Your task to perform on an android device: turn on notifications settings in the gmail app Image 0: 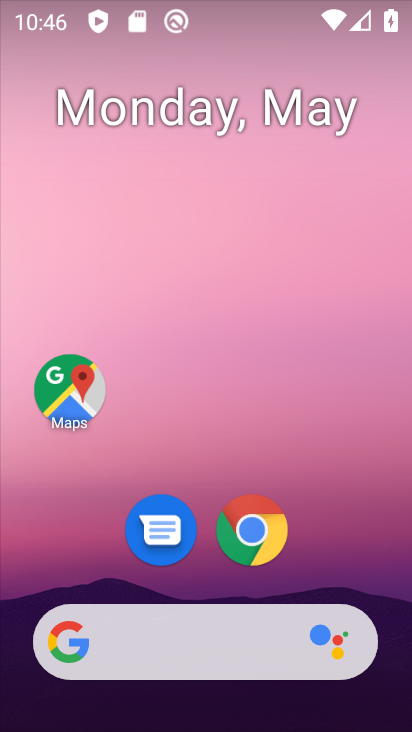
Step 0: drag from (312, 548) to (314, 2)
Your task to perform on an android device: turn on notifications settings in the gmail app Image 1: 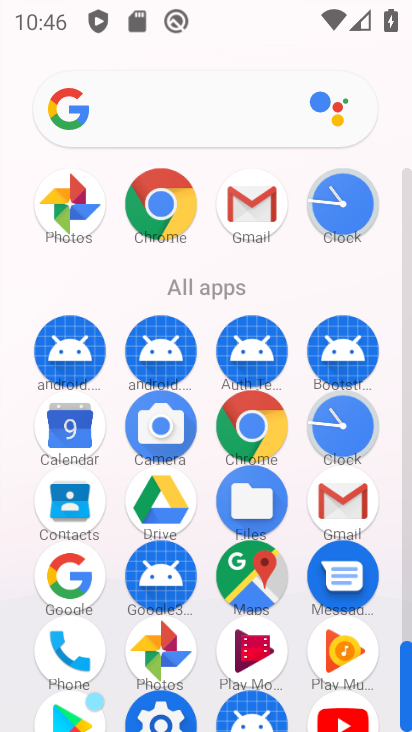
Step 1: drag from (9, 661) to (22, 354)
Your task to perform on an android device: turn on notifications settings in the gmail app Image 2: 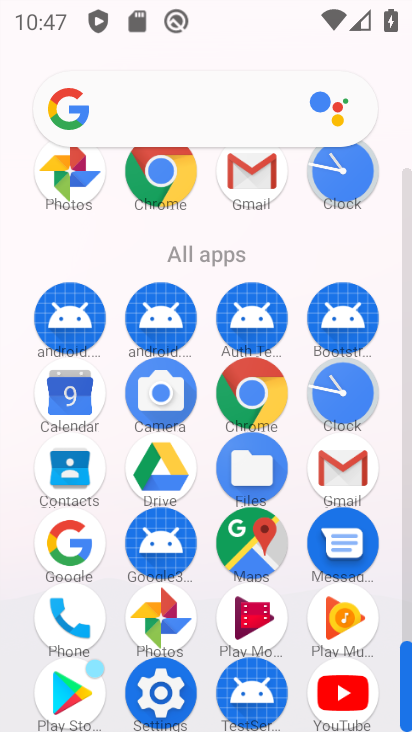
Step 2: click (342, 458)
Your task to perform on an android device: turn on notifications settings in the gmail app Image 3: 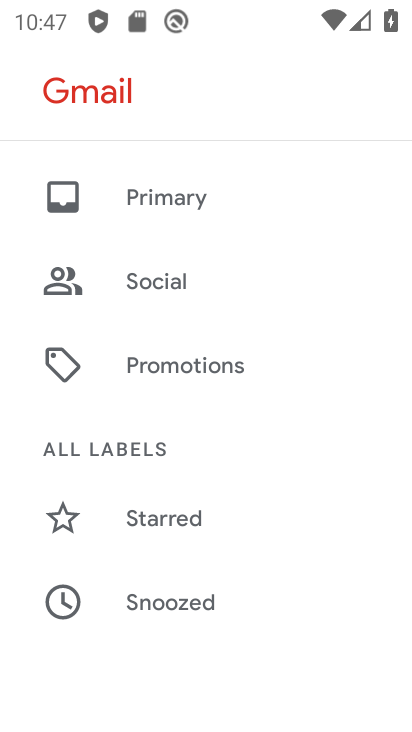
Step 3: drag from (245, 586) to (276, 160)
Your task to perform on an android device: turn on notifications settings in the gmail app Image 4: 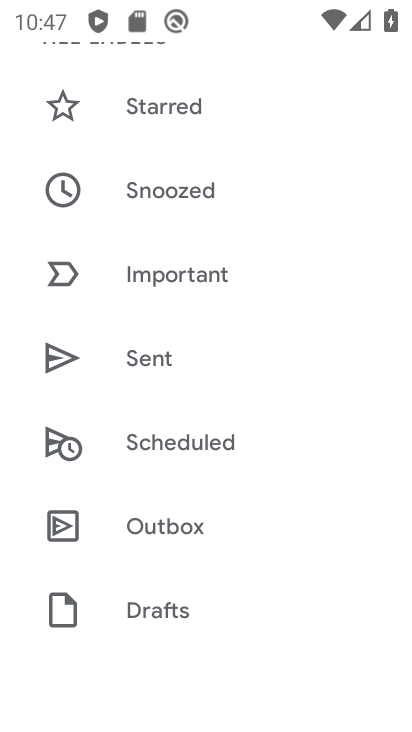
Step 4: drag from (237, 590) to (264, 130)
Your task to perform on an android device: turn on notifications settings in the gmail app Image 5: 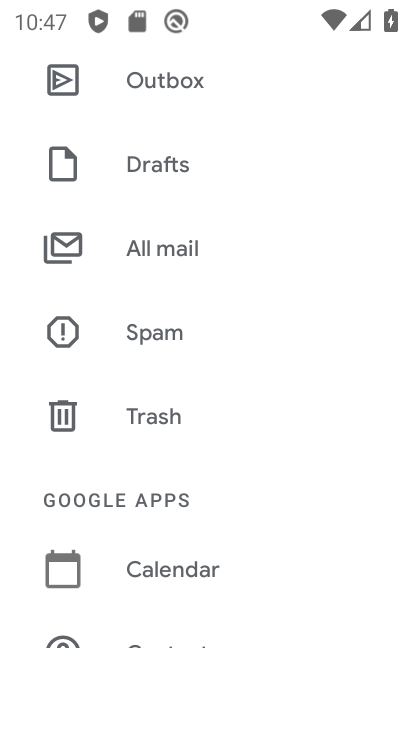
Step 5: drag from (216, 568) to (258, 190)
Your task to perform on an android device: turn on notifications settings in the gmail app Image 6: 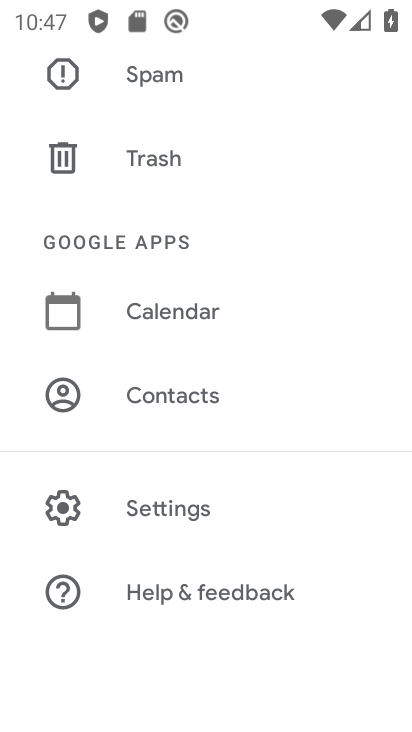
Step 6: click (168, 499)
Your task to perform on an android device: turn on notifications settings in the gmail app Image 7: 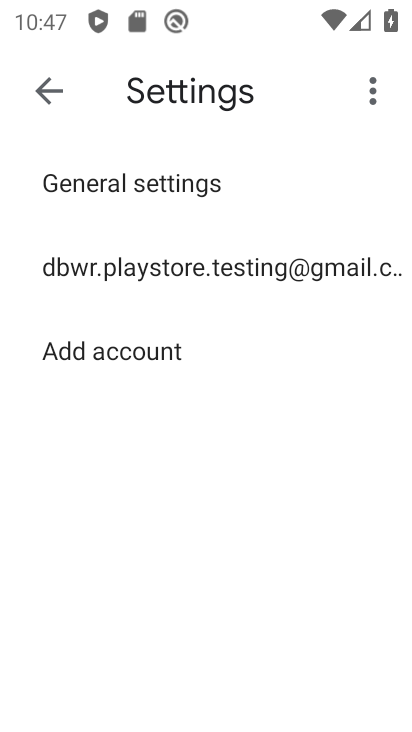
Step 7: click (166, 175)
Your task to perform on an android device: turn on notifications settings in the gmail app Image 8: 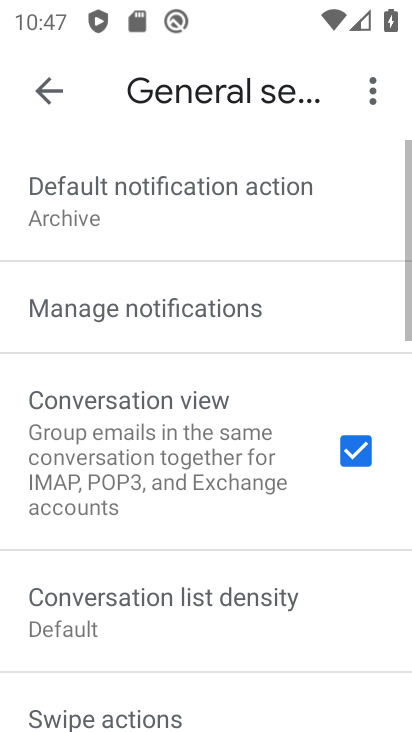
Step 8: drag from (151, 523) to (201, 146)
Your task to perform on an android device: turn on notifications settings in the gmail app Image 9: 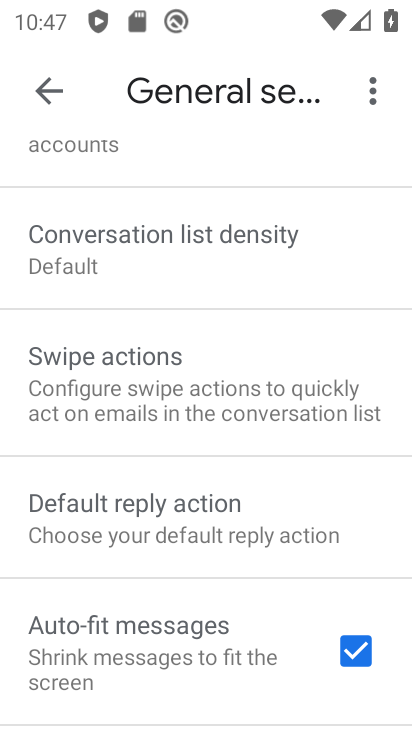
Step 9: drag from (181, 606) to (226, 214)
Your task to perform on an android device: turn on notifications settings in the gmail app Image 10: 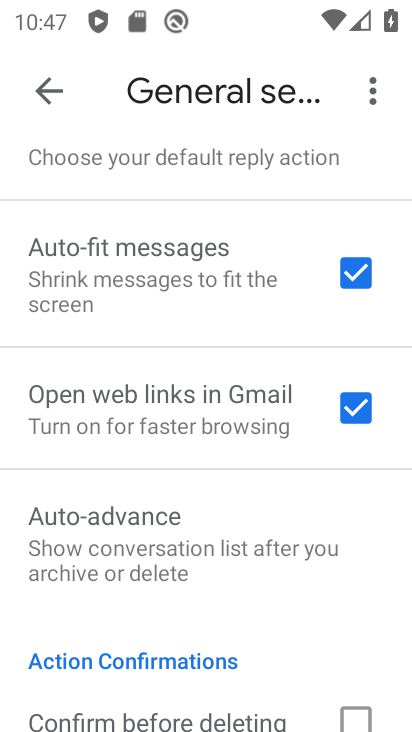
Step 10: drag from (172, 618) to (171, 240)
Your task to perform on an android device: turn on notifications settings in the gmail app Image 11: 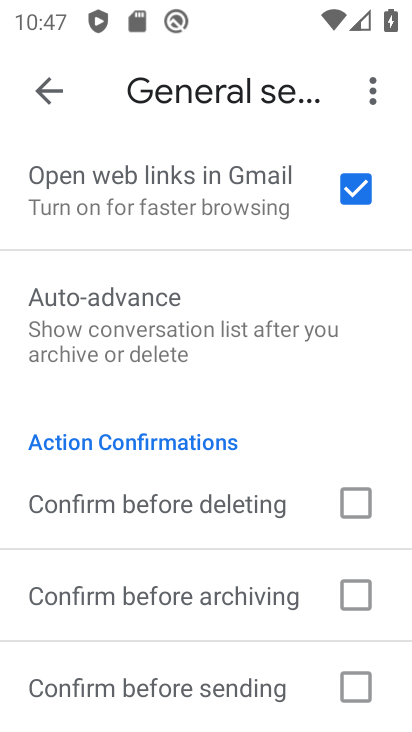
Step 11: drag from (131, 595) to (180, 195)
Your task to perform on an android device: turn on notifications settings in the gmail app Image 12: 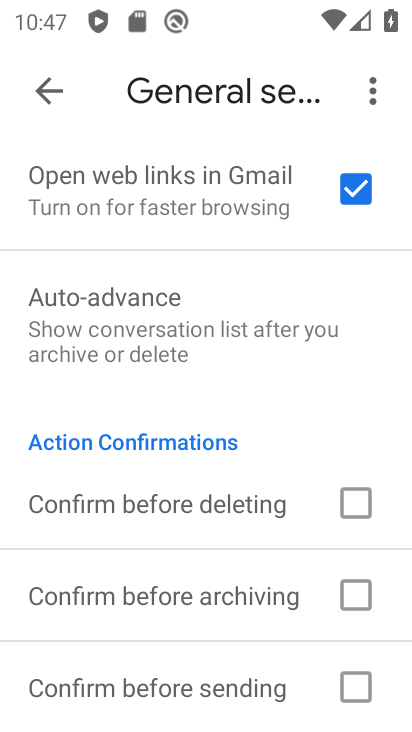
Step 12: drag from (178, 183) to (155, 591)
Your task to perform on an android device: turn on notifications settings in the gmail app Image 13: 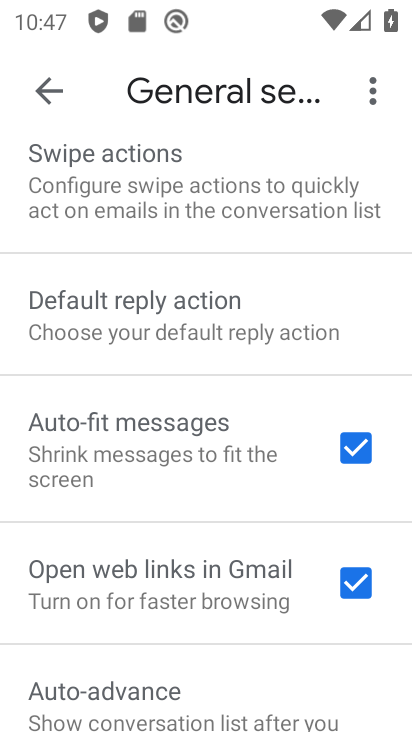
Step 13: drag from (178, 233) to (178, 554)
Your task to perform on an android device: turn on notifications settings in the gmail app Image 14: 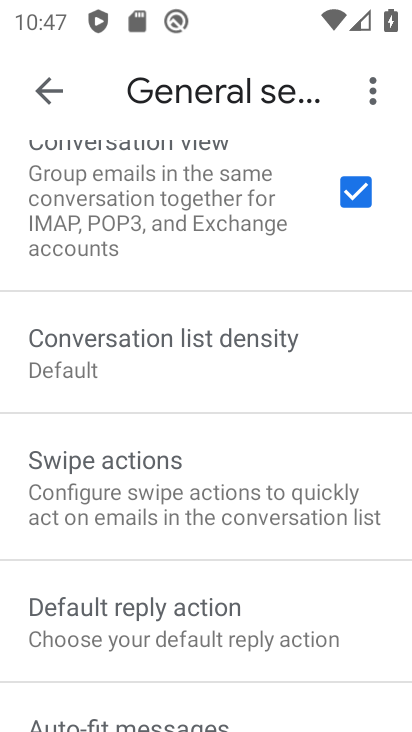
Step 14: drag from (214, 299) to (185, 593)
Your task to perform on an android device: turn on notifications settings in the gmail app Image 15: 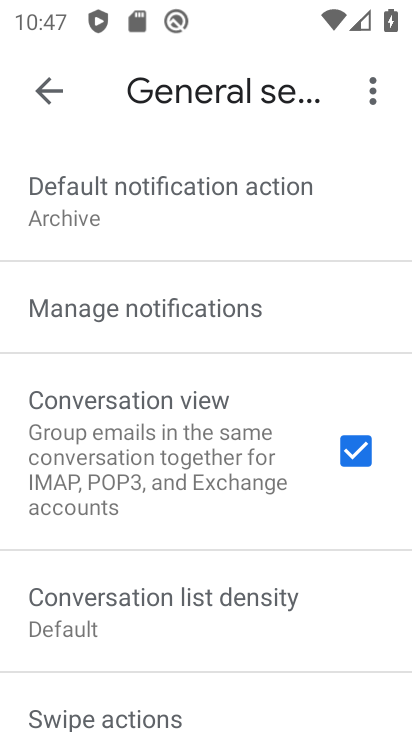
Step 15: click (139, 316)
Your task to perform on an android device: turn on notifications settings in the gmail app Image 16: 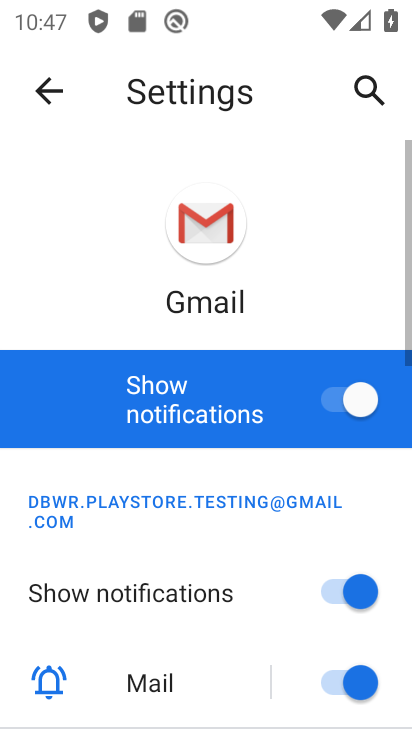
Step 16: task complete